Your task to perform on an android device: Open the map Image 0: 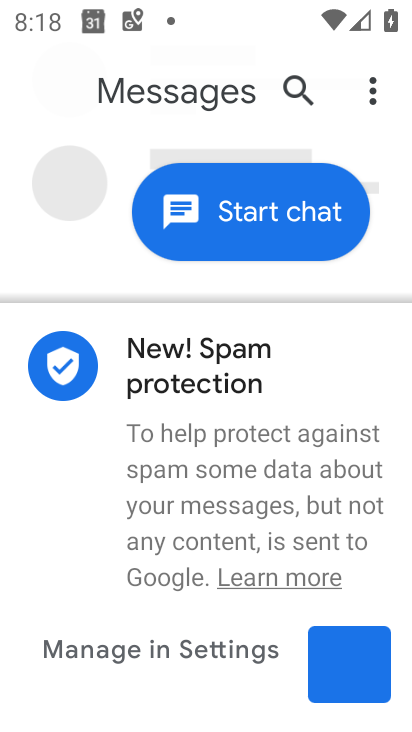
Step 0: press home button
Your task to perform on an android device: Open the map Image 1: 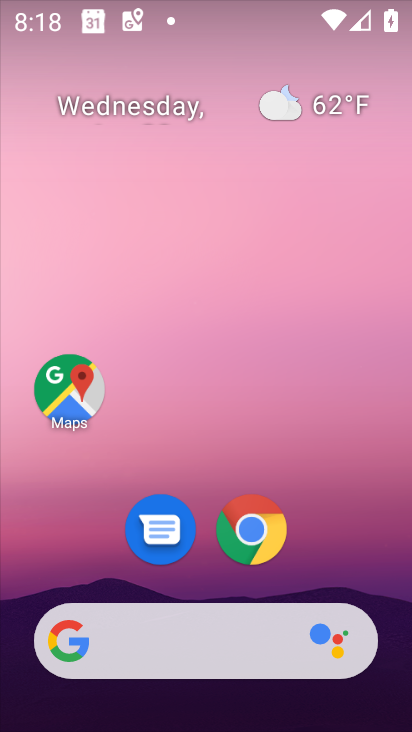
Step 1: click (70, 401)
Your task to perform on an android device: Open the map Image 2: 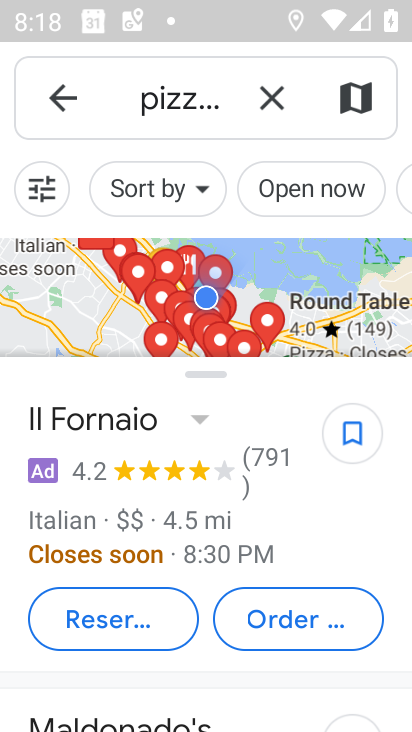
Step 2: task complete